Your task to perform on an android device: Open settings on Google Maps Image 0: 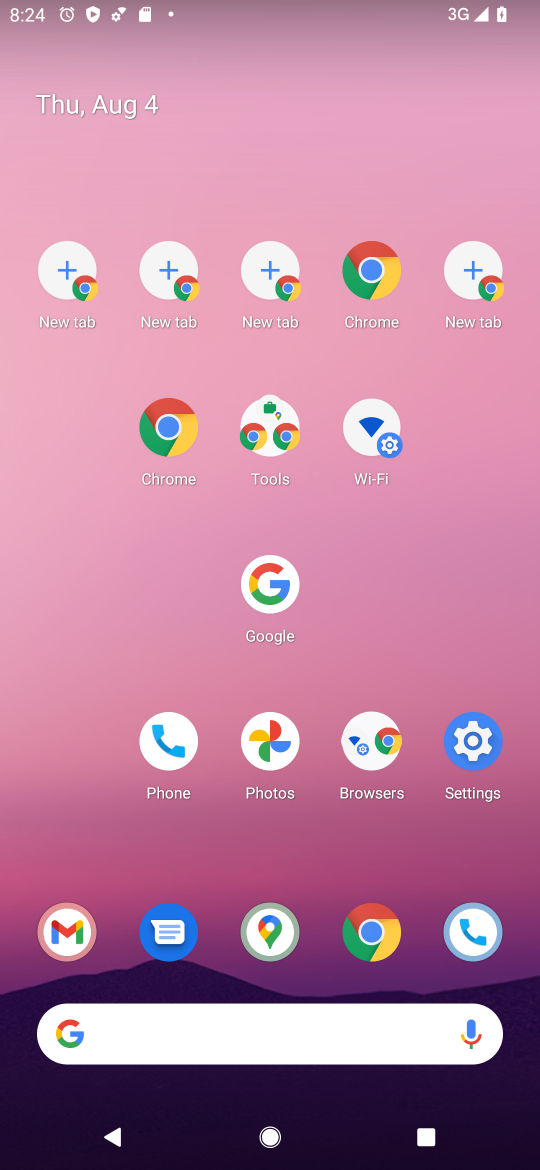
Step 0: drag from (361, 1053) to (324, 420)
Your task to perform on an android device: Open settings on Google Maps Image 1: 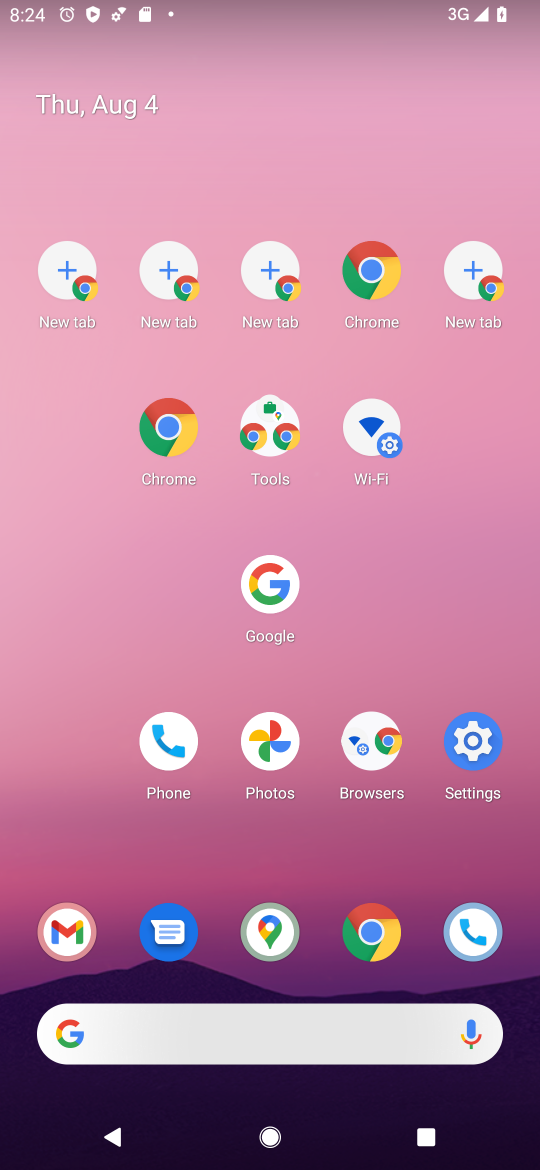
Step 1: drag from (362, 781) to (368, 480)
Your task to perform on an android device: Open settings on Google Maps Image 2: 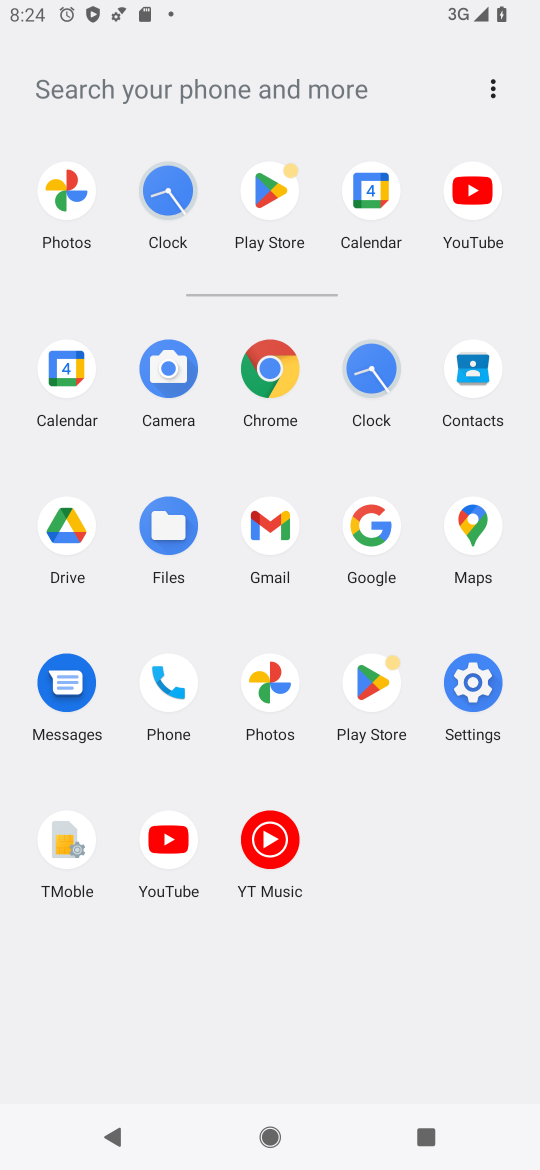
Step 2: click (476, 550)
Your task to perform on an android device: Open settings on Google Maps Image 3: 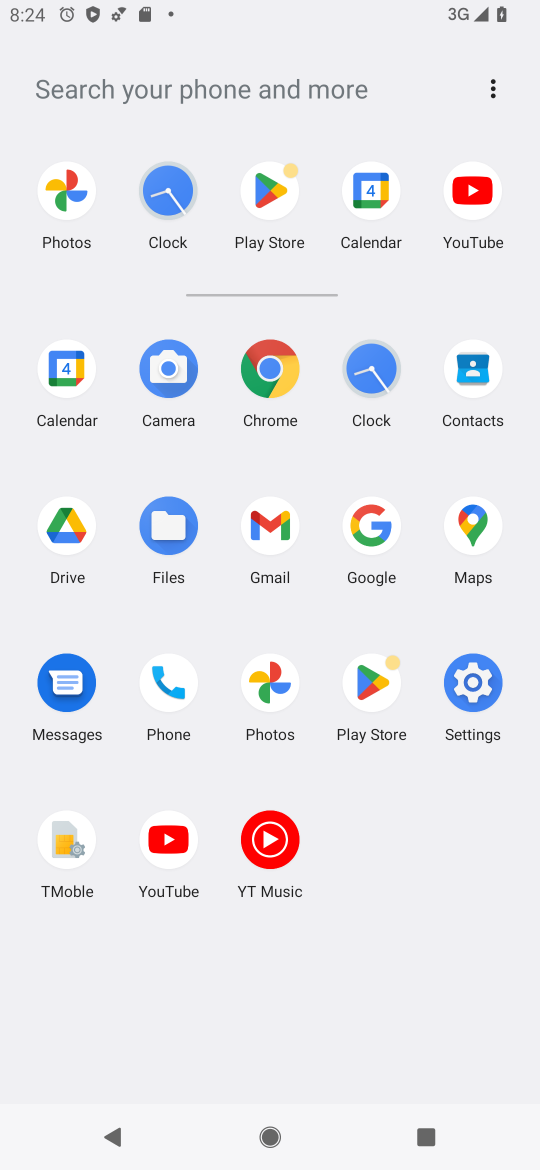
Step 3: click (476, 550)
Your task to perform on an android device: Open settings on Google Maps Image 4: 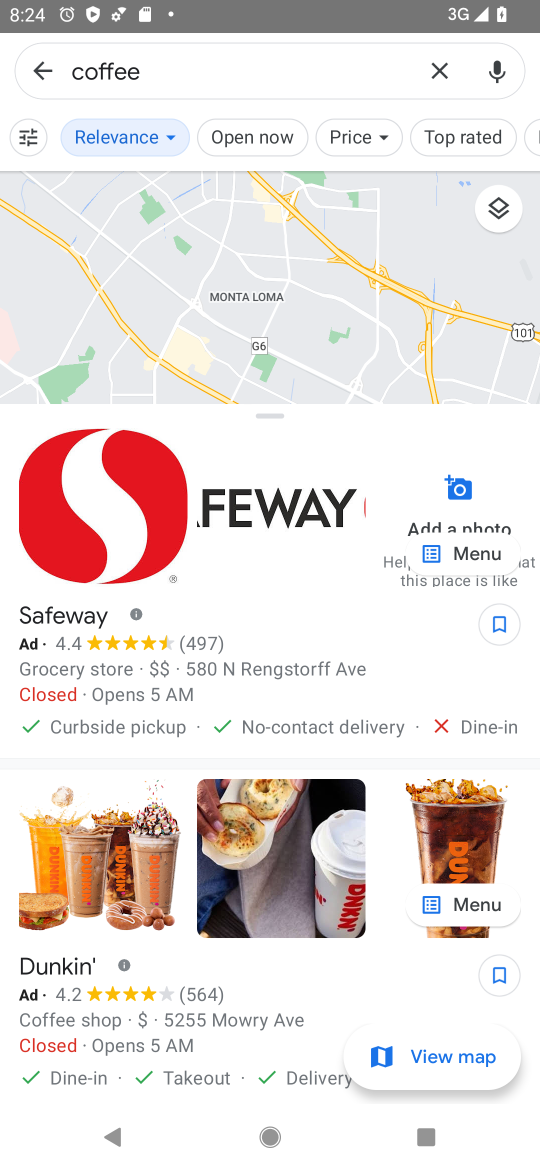
Step 4: click (51, 64)
Your task to perform on an android device: Open settings on Google Maps Image 5: 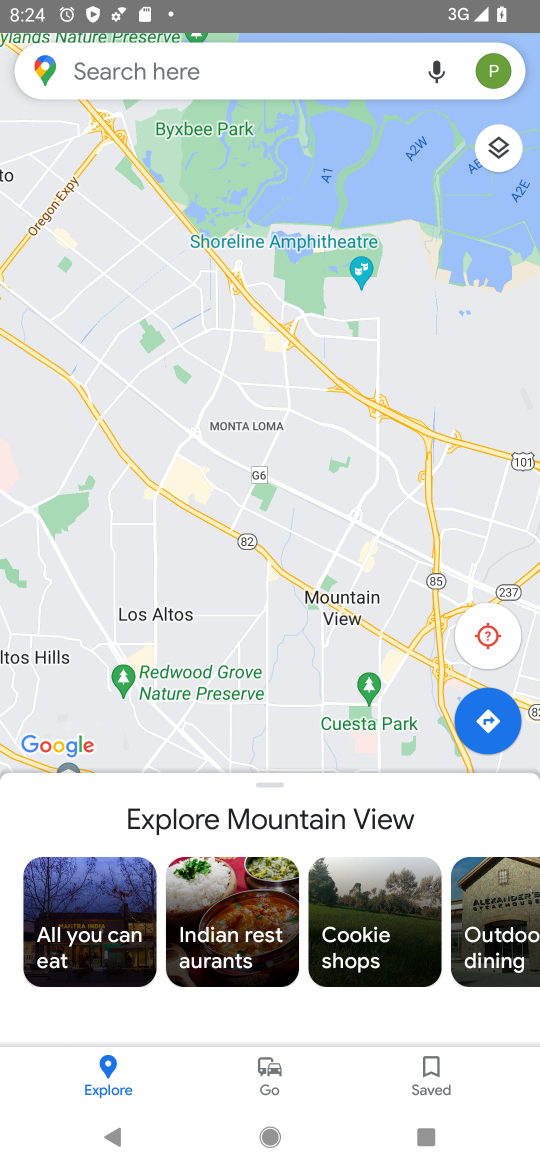
Step 5: click (125, 67)
Your task to perform on an android device: Open settings on Google Maps Image 6: 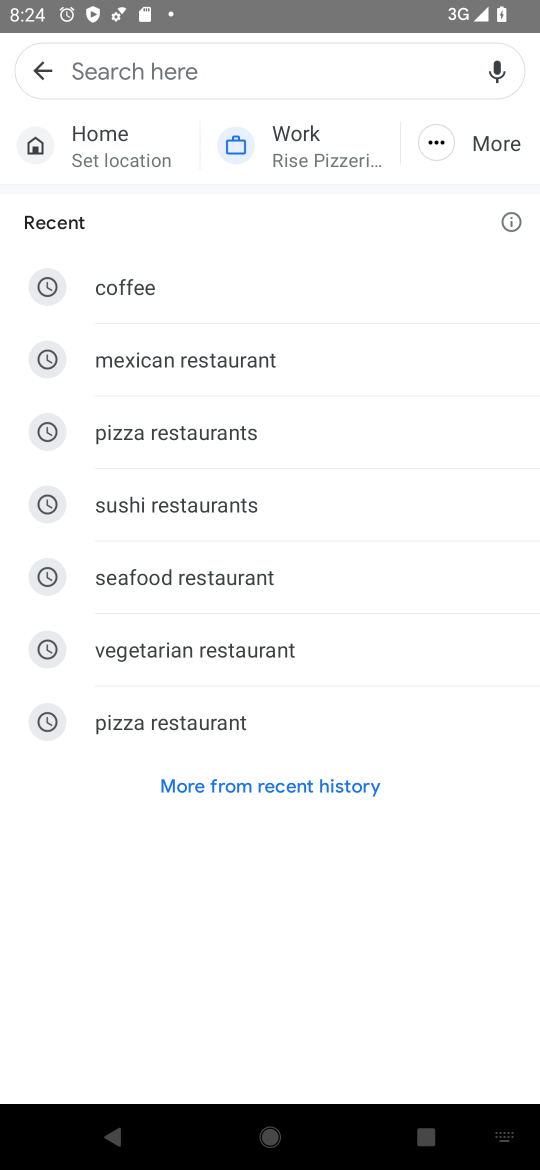
Step 6: click (31, 79)
Your task to perform on an android device: Open settings on Google Maps Image 7: 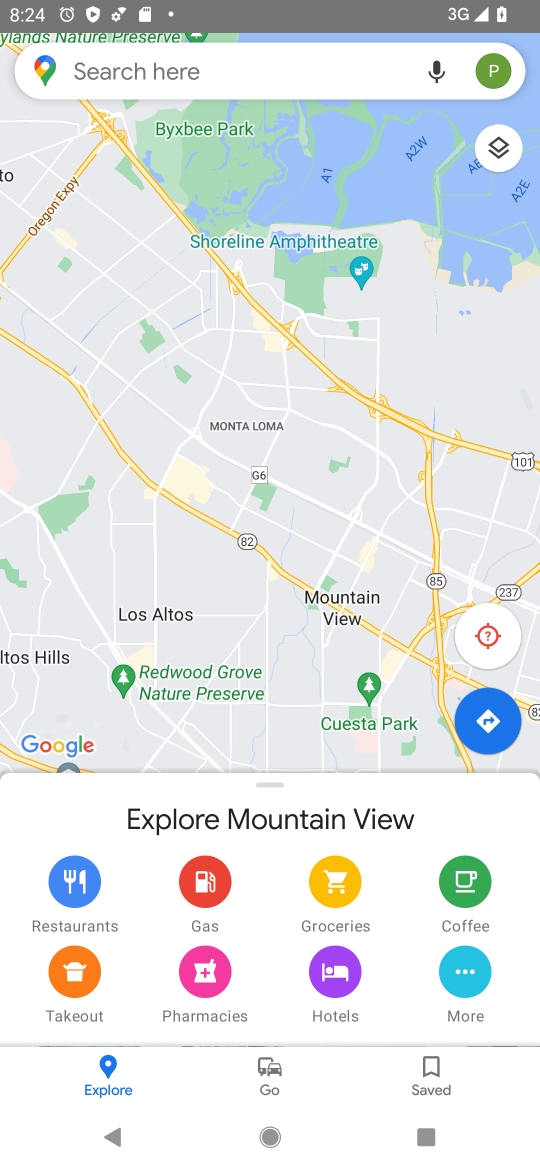
Step 7: click (36, 72)
Your task to perform on an android device: Open settings on Google Maps Image 8: 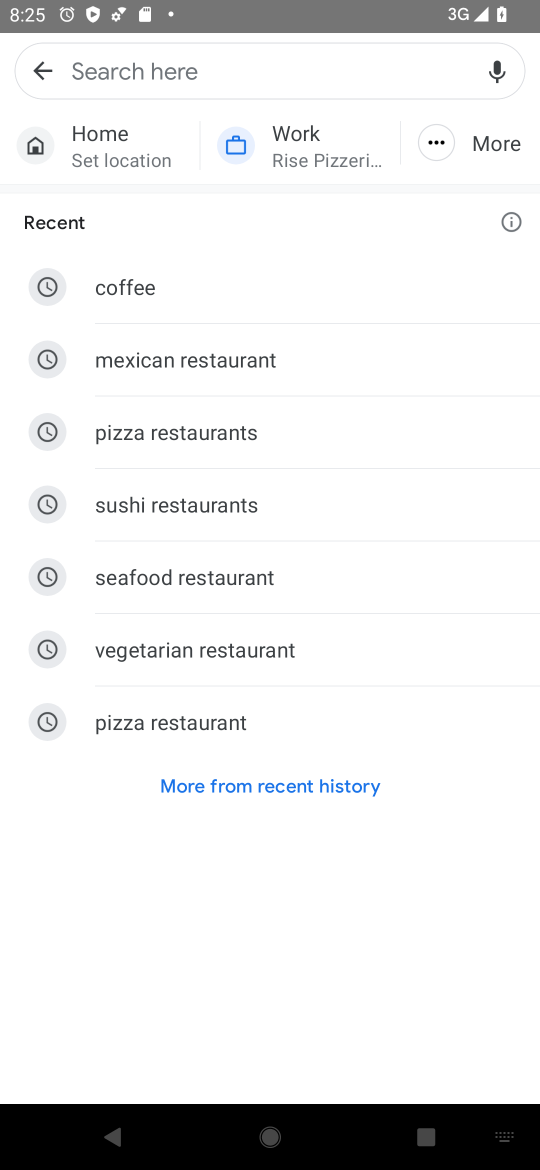
Step 8: click (32, 44)
Your task to perform on an android device: Open settings on Google Maps Image 9: 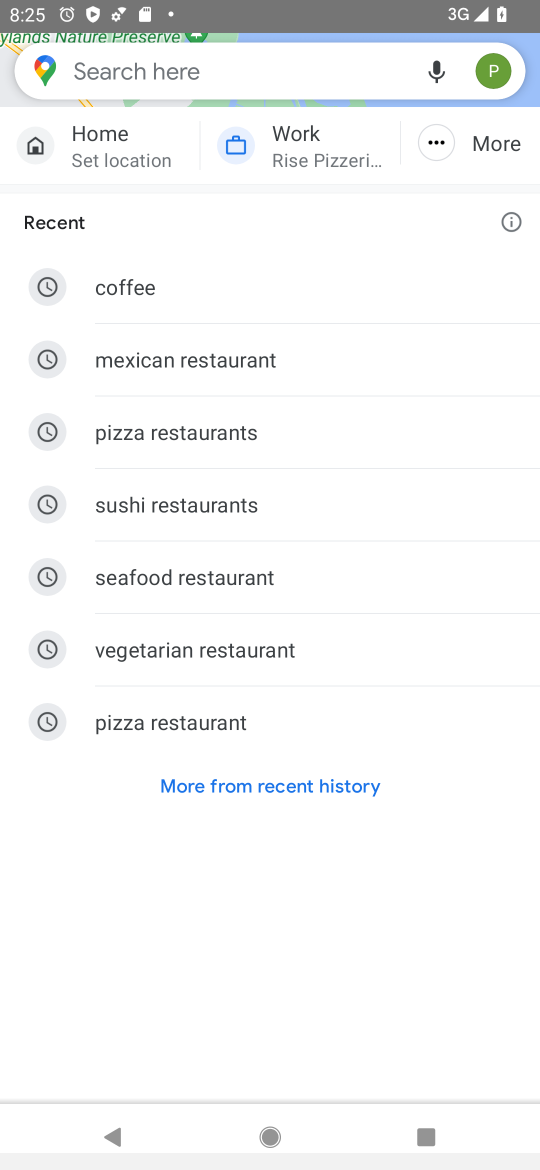
Step 9: click (34, 65)
Your task to perform on an android device: Open settings on Google Maps Image 10: 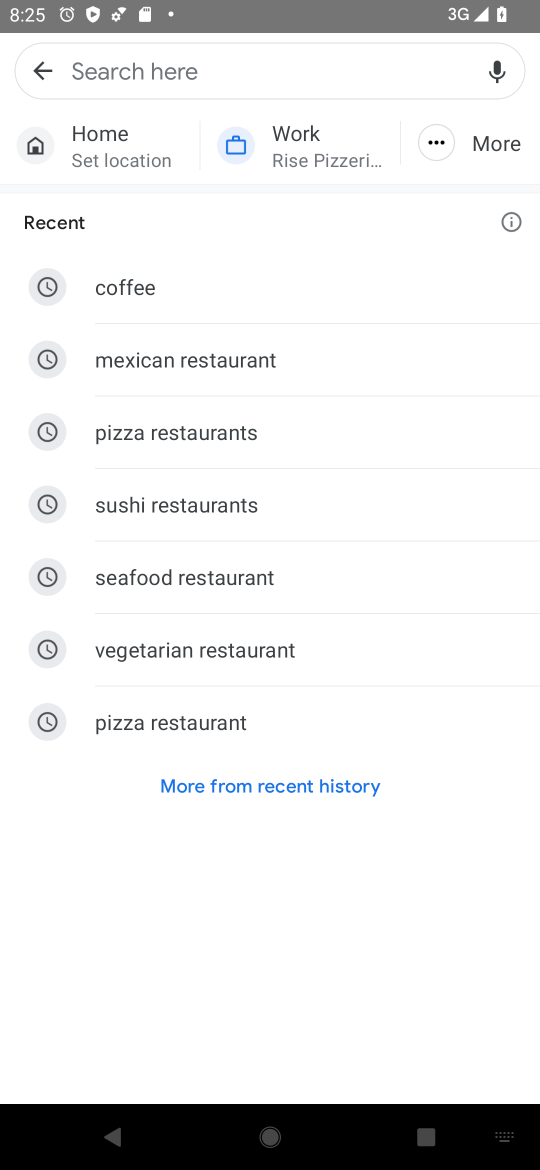
Step 10: click (40, 61)
Your task to perform on an android device: Open settings on Google Maps Image 11: 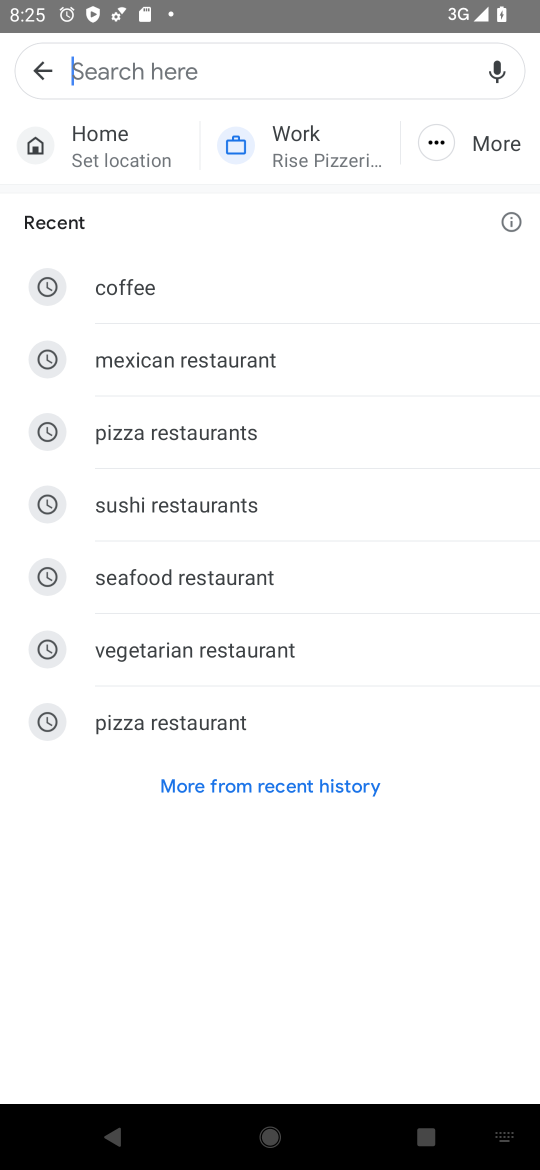
Step 11: click (38, 61)
Your task to perform on an android device: Open settings on Google Maps Image 12: 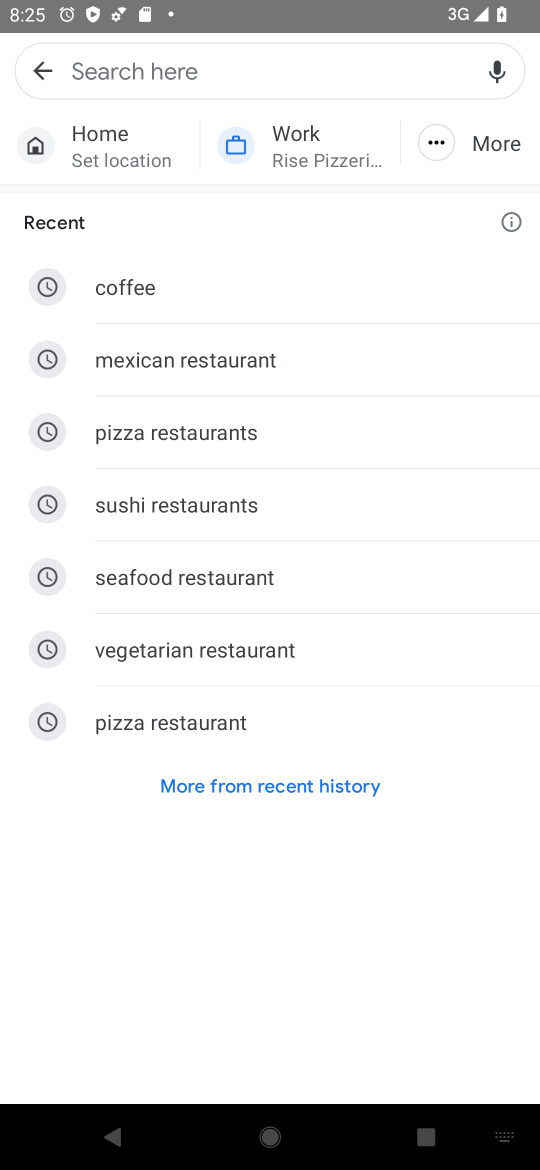
Step 12: drag from (52, 76) to (272, 431)
Your task to perform on an android device: Open settings on Google Maps Image 13: 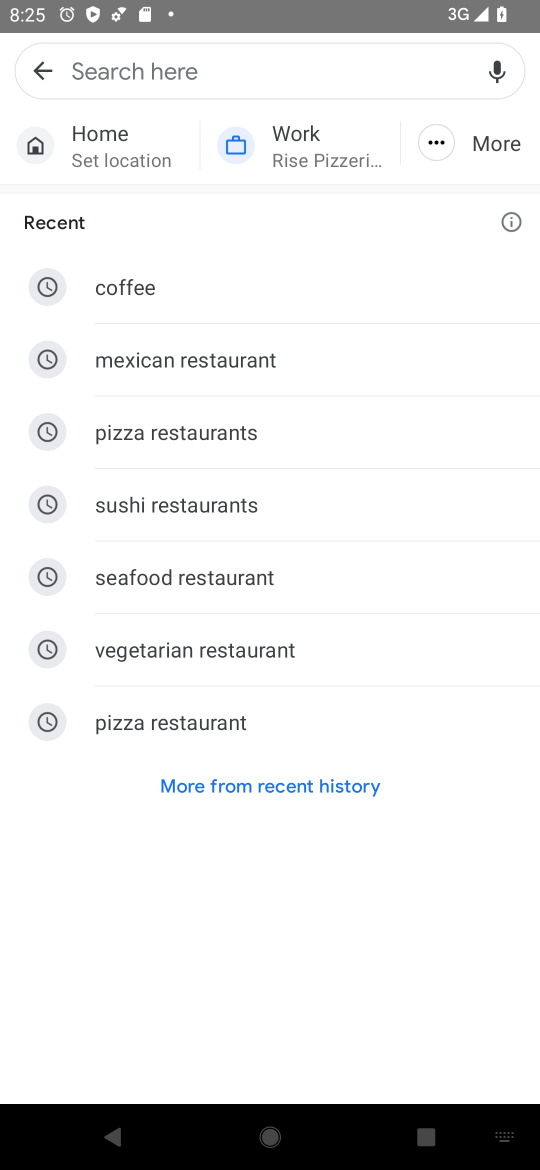
Step 13: click (41, 79)
Your task to perform on an android device: Open settings on Google Maps Image 14: 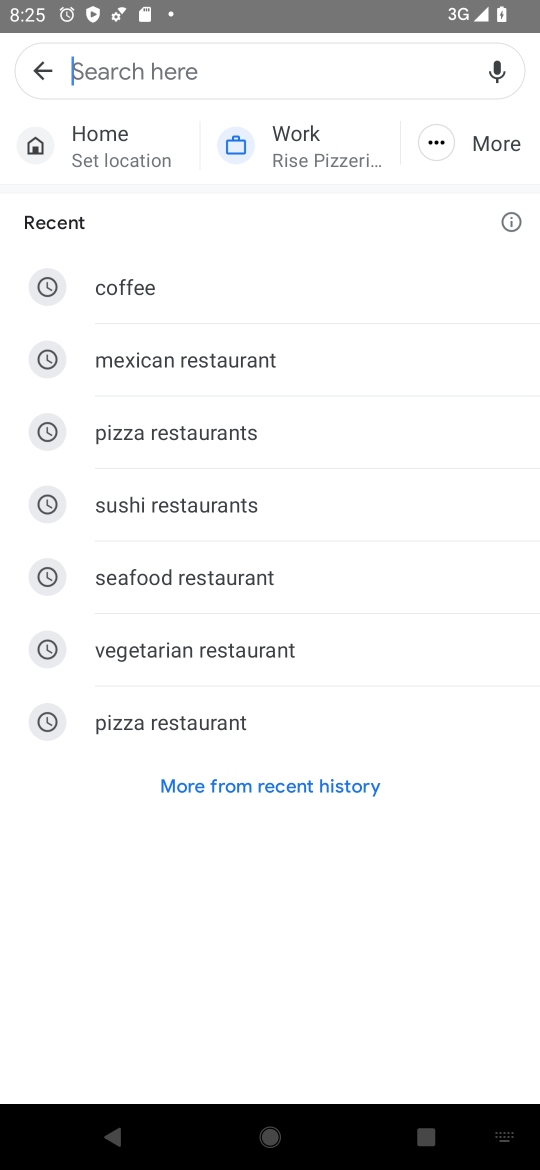
Step 14: click (40, 81)
Your task to perform on an android device: Open settings on Google Maps Image 15: 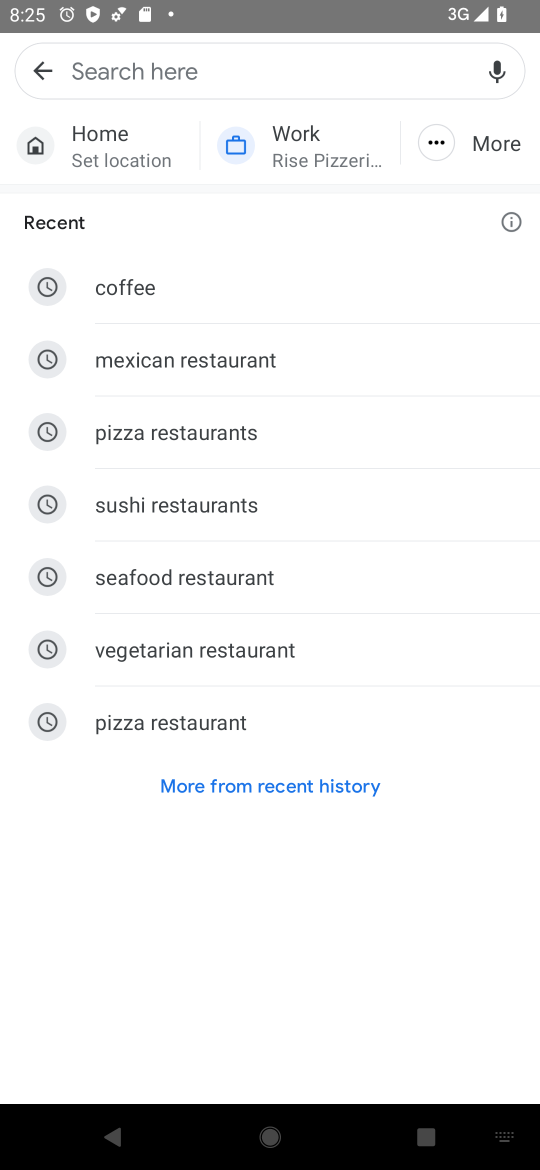
Step 15: task complete